Your task to perform on an android device: Go to Android settings Image 0: 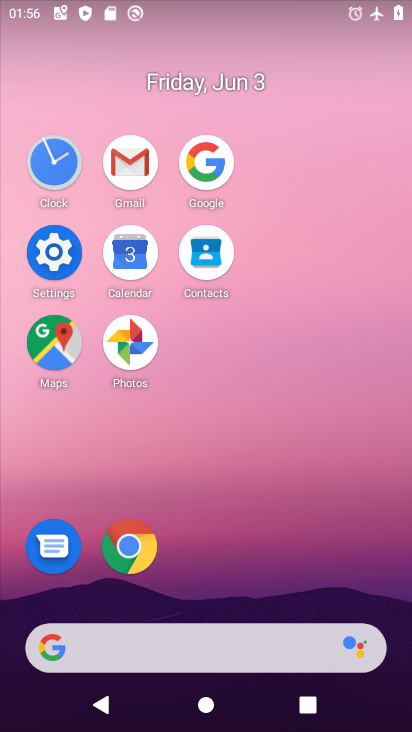
Step 0: click (66, 245)
Your task to perform on an android device: Go to Android settings Image 1: 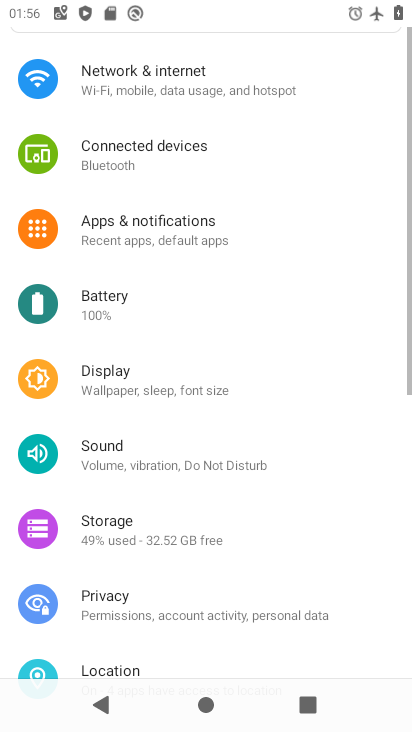
Step 1: task complete